Your task to perform on an android device: What's the weather going to be tomorrow? Image 0: 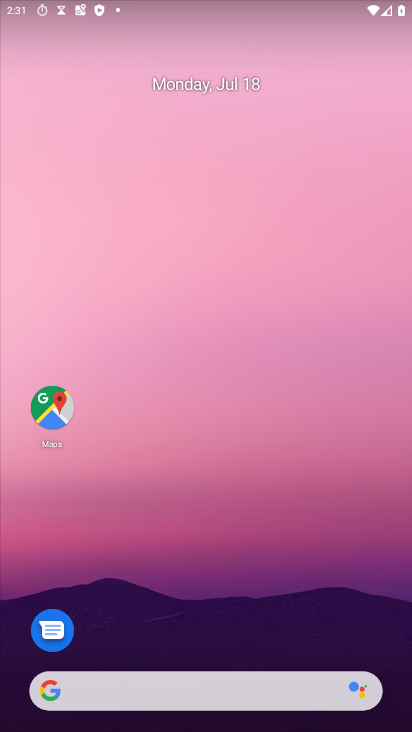
Step 0: drag from (281, 688) to (334, 50)
Your task to perform on an android device: What's the weather going to be tomorrow? Image 1: 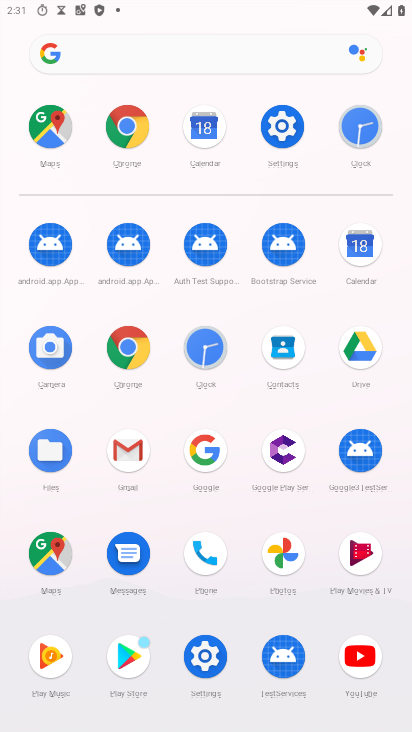
Step 1: click (119, 364)
Your task to perform on an android device: What's the weather going to be tomorrow? Image 2: 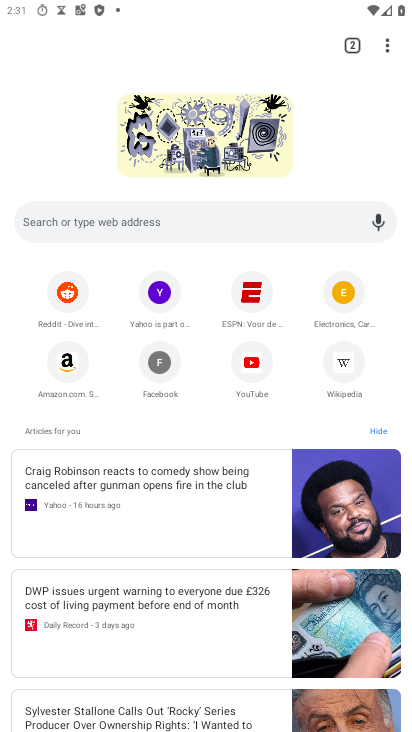
Step 2: click (167, 216)
Your task to perform on an android device: What's the weather going to be tomorrow? Image 3: 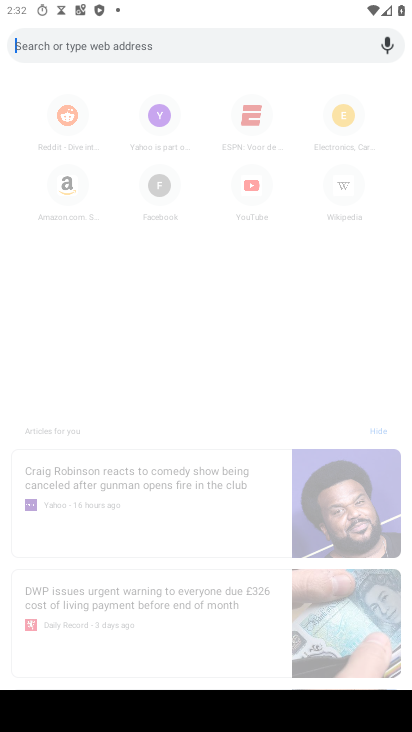
Step 3: type "weather going to be tomorrow"
Your task to perform on an android device: What's the weather going to be tomorrow? Image 4: 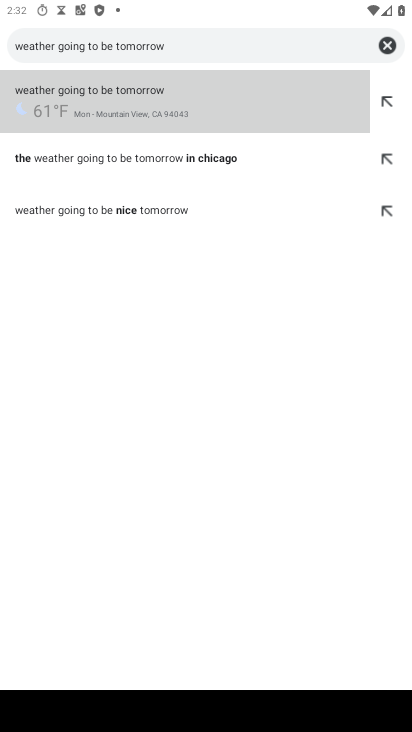
Step 4: click (270, 102)
Your task to perform on an android device: What's the weather going to be tomorrow? Image 5: 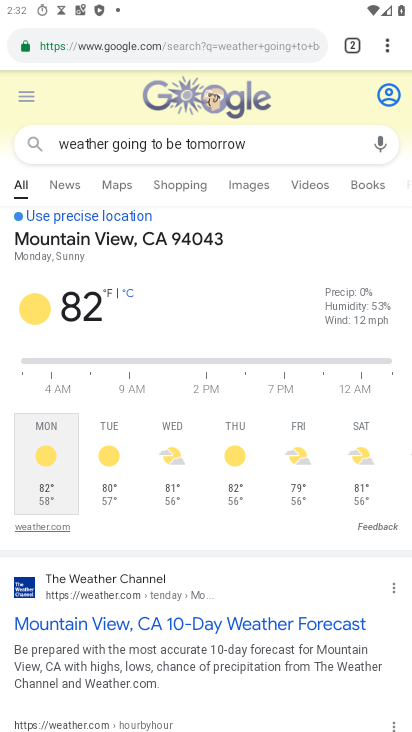
Step 5: task complete